Your task to perform on an android device: Open Android settings Image 0: 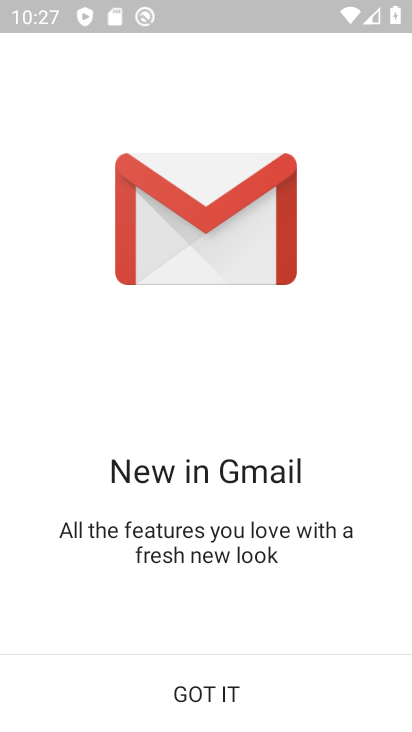
Step 0: press home button
Your task to perform on an android device: Open Android settings Image 1: 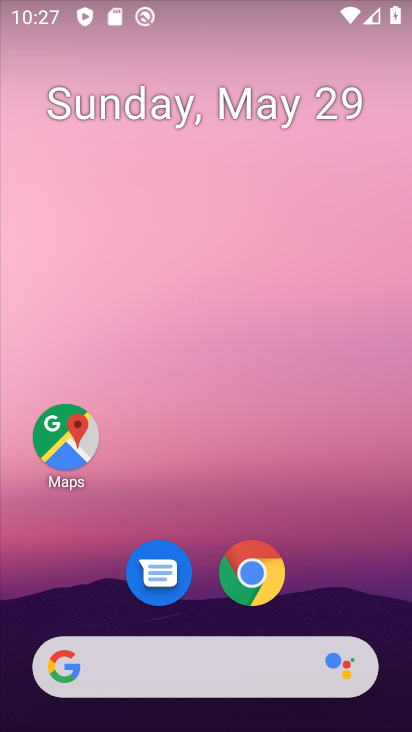
Step 1: drag from (328, 589) to (308, 127)
Your task to perform on an android device: Open Android settings Image 2: 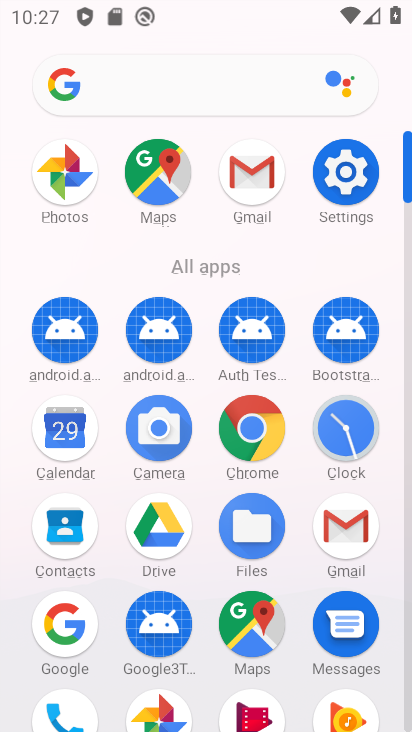
Step 2: click (335, 179)
Your task to perform on an android device: Open Android settings Image 3: 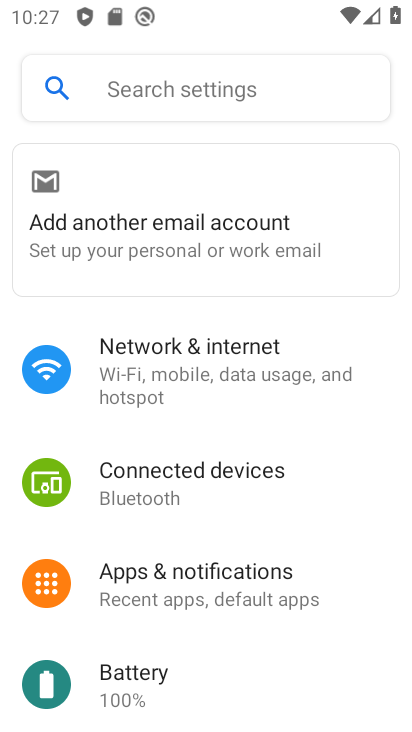
Step 3: task complete